Your task to perform on an android device: Go to Wikipedia Image 0: 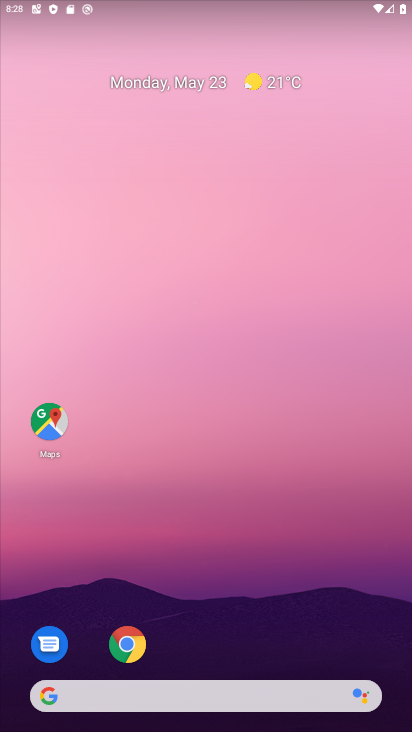
Step 0: click (261, 712)
Your task to perform on an android device: Go to Wikipedia Image 1: 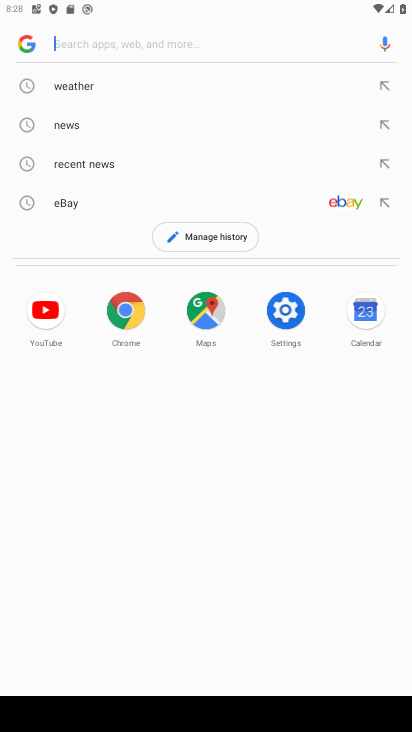
Step 1: type "wikipedia"
Your task to perform on an android device: Go to Wikipedia Image 2: 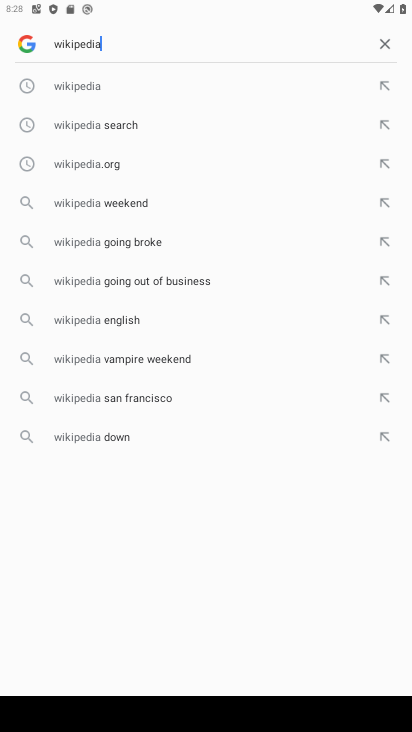
Step 2: click (124, 92)
Your task to perform on an android device: Go to Wikipedia Image 3: 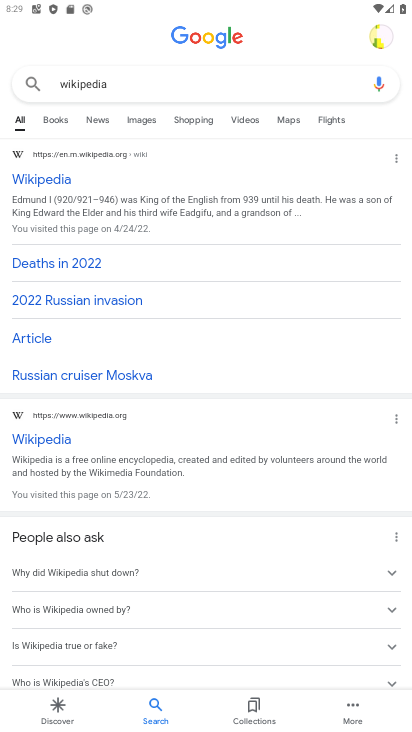
Step 3: click (64, 151)
Your task to perform on an android device: Go to Wikipedia Image 4: 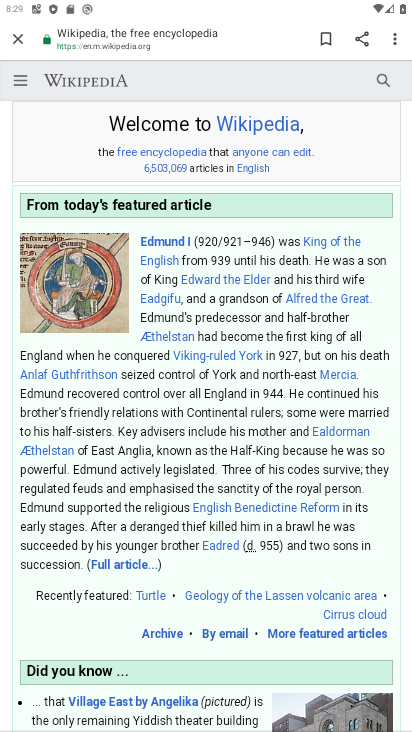
Step 4: task complete